Your task to perform on an android device: turn on wifi Image 0: 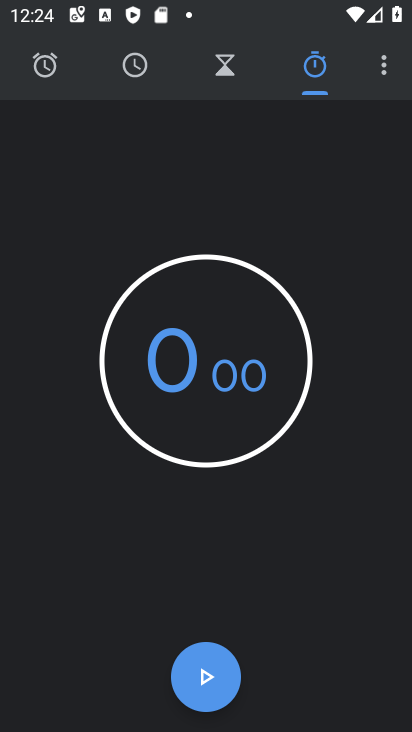
Step 0: drag from (255, 11) to (306, 505)
Your task to perform on an android device: turn on wifi Image 1: 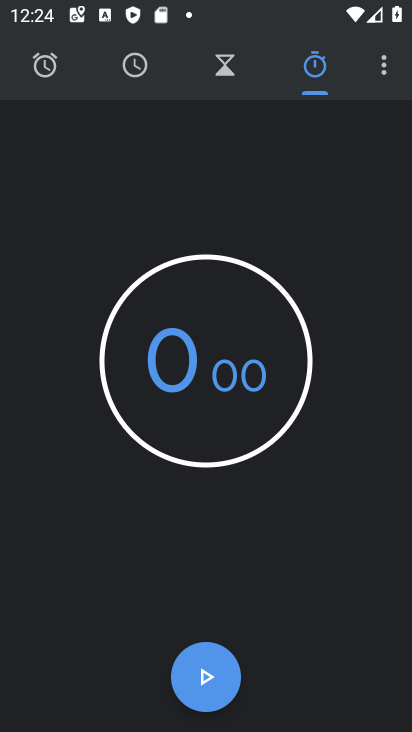
Step 1: task complete